Your task to perform on an android device: Open the stopwatch Image 0: 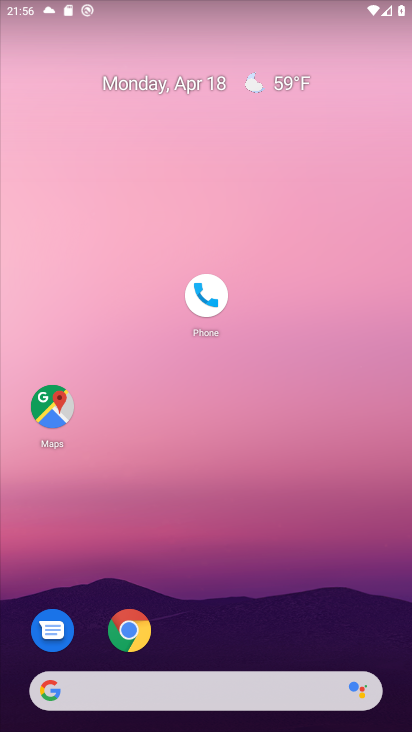
Step 0: drag from (308, 590) to (294, 174)
Your task to perform on an android device: Open the stopwatch Image 1: 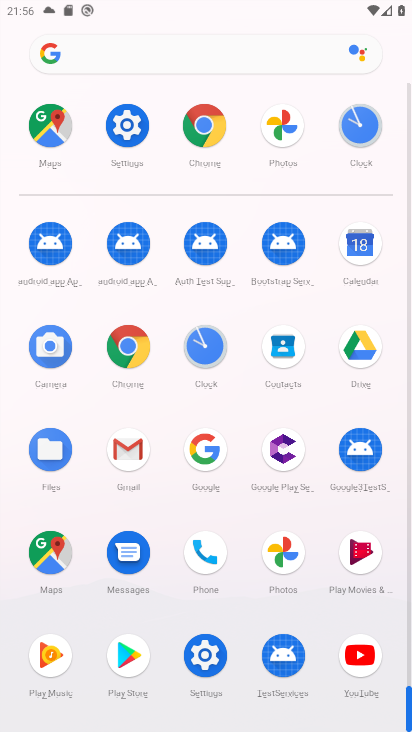
Step 1: click (354, 132)
Your task to perform on an android device: Open the stopwatch Image 2: 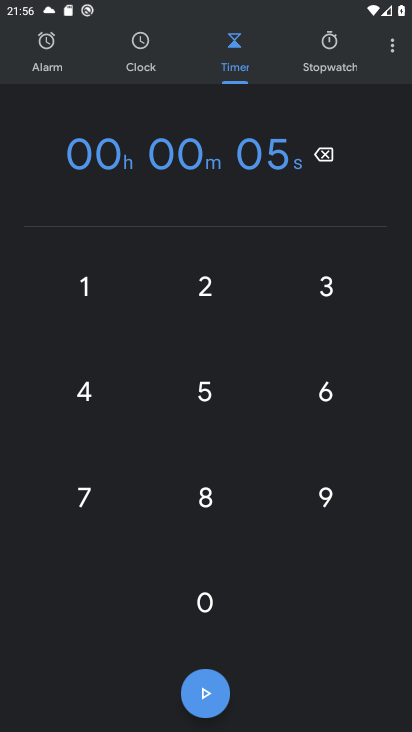
Step 2: click (321, 40)
Your task to perform on an android device: Open the stopwatch Image 3: 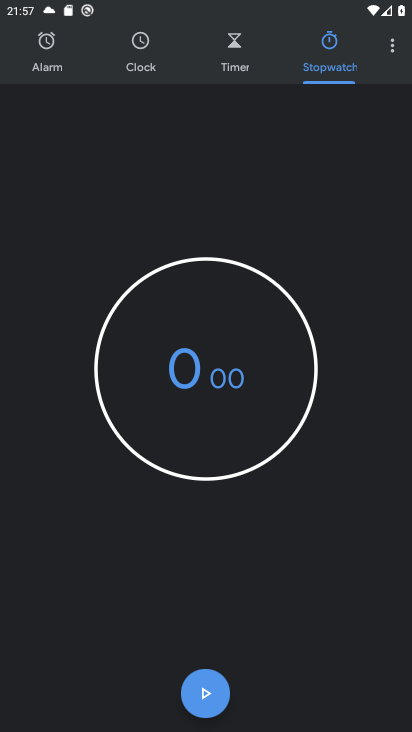
Step 3: task complete